Your task to perform on an android device: add a label to a message in the gmail app Image 0: 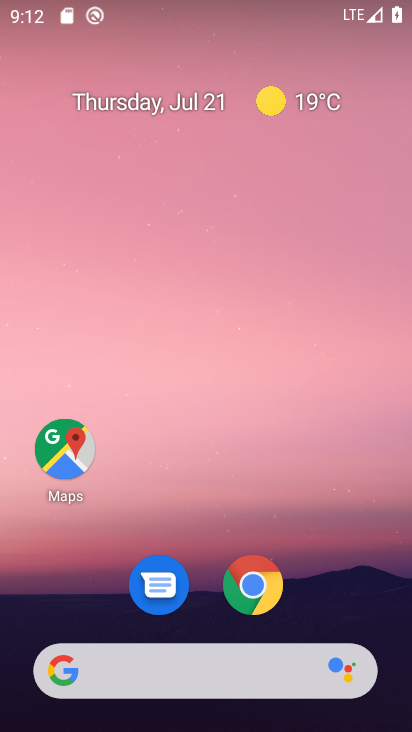
Step 0: drag from (347, 591) to (363, 46)
Your task to perform on an android device: add a label to a message in the gmail app Image 1: 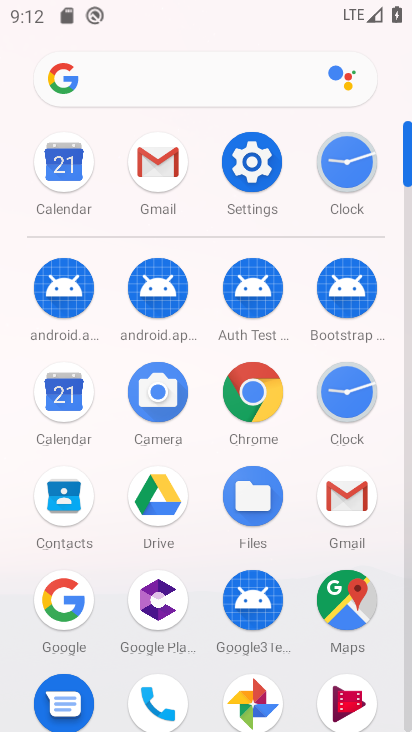
Step 1: click (168, 167)
Your task to perform on an android device: add a label to a message in the gmail app Image 2: 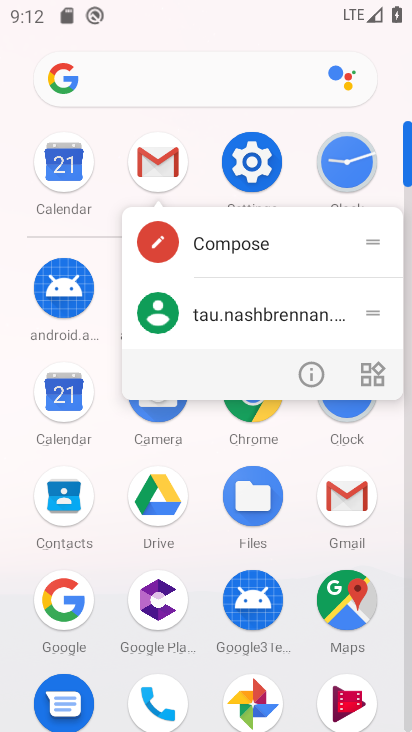
Step 2: click (158, 157)
Your task to perform on an android device: add a label to a message in the gmail app Image 3: 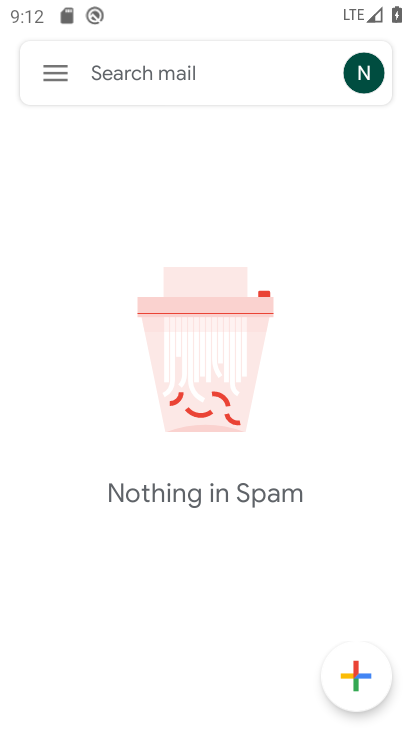
Step 3: click (57, 66)
Your task to perform on an android device: add a label to a message in the gmail app Image 4: 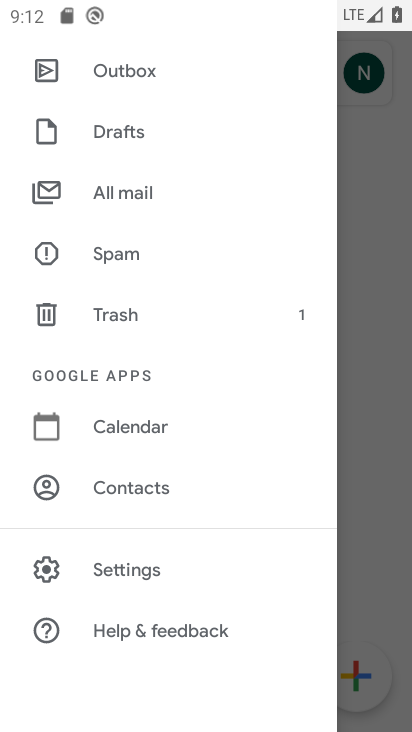
Step 4: click (118, 185)
Your task to perform on an android device: add a label to a message in the gmail app Image 5: 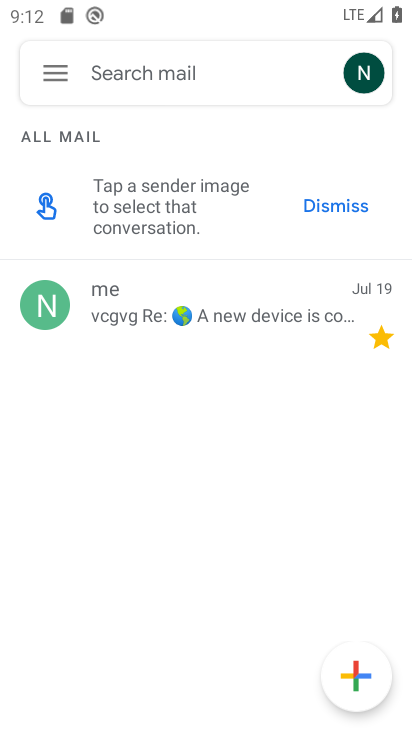
Step 5: click (284, 305)
Your task to perform on an android device: add a label to a message in the gmail app Image 6: 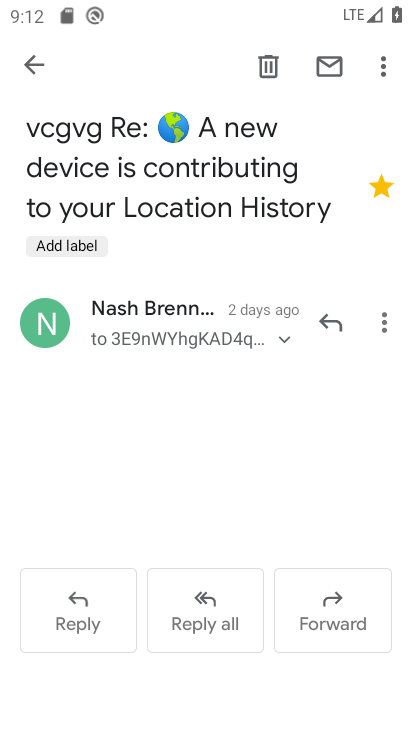
Step 6: click (377, 61)
Your task to perform on an android device: add a label to a message in the gmail app Image 7: 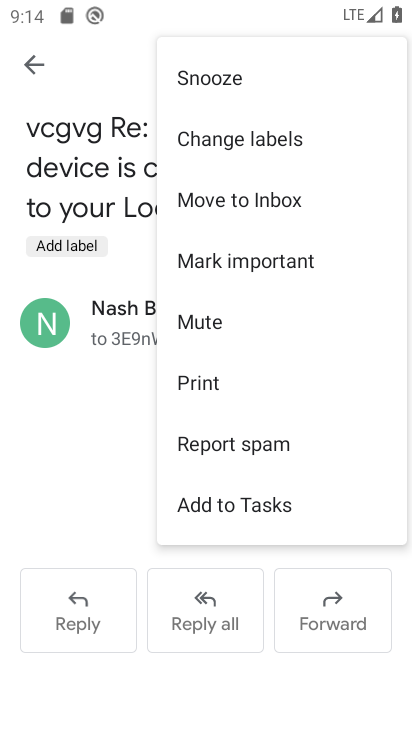
Step 7: task complete